Your task to perform on an android device: Go to Reddit.com Image 0: 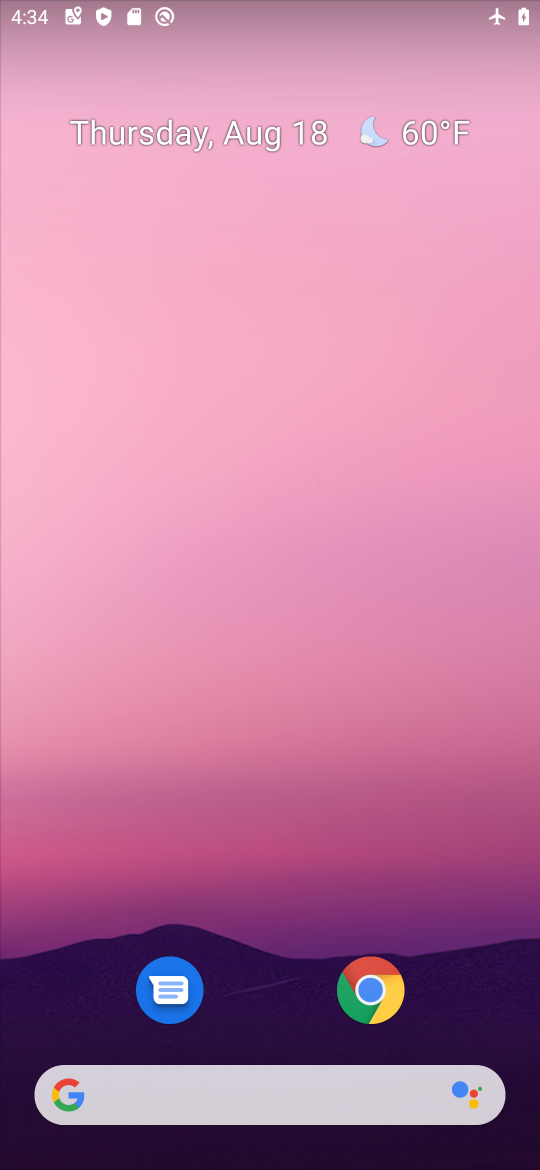
Step 0: drag from (172, 602) to (302, 0)
Your task to perform on an android device: Go to Reddit.com Image 1: 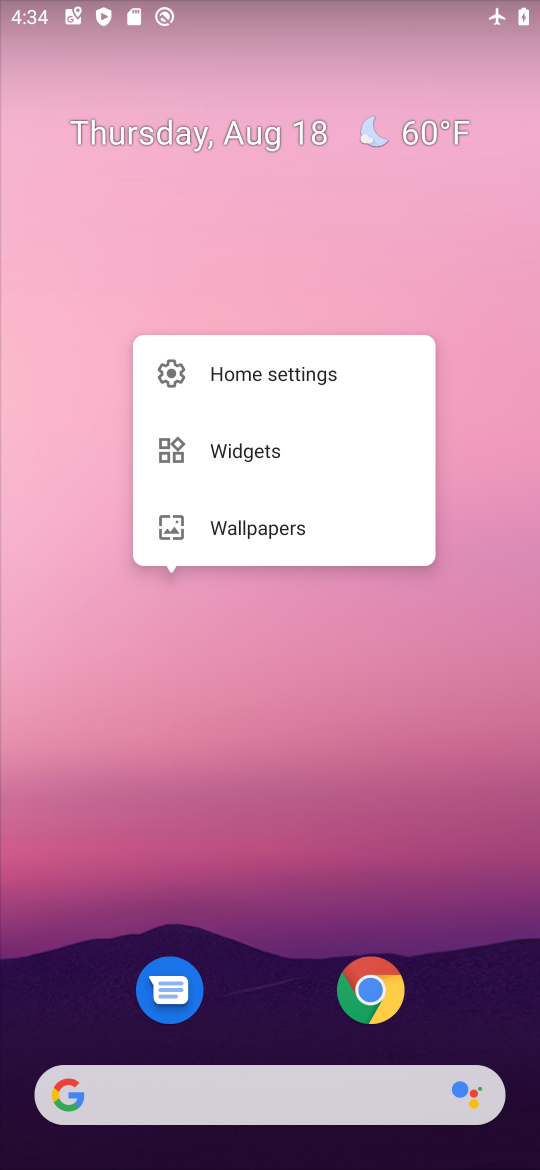
Step 1: click (352, 814)
Your task to perform on an android device: Go to Reddit.com Image 2: 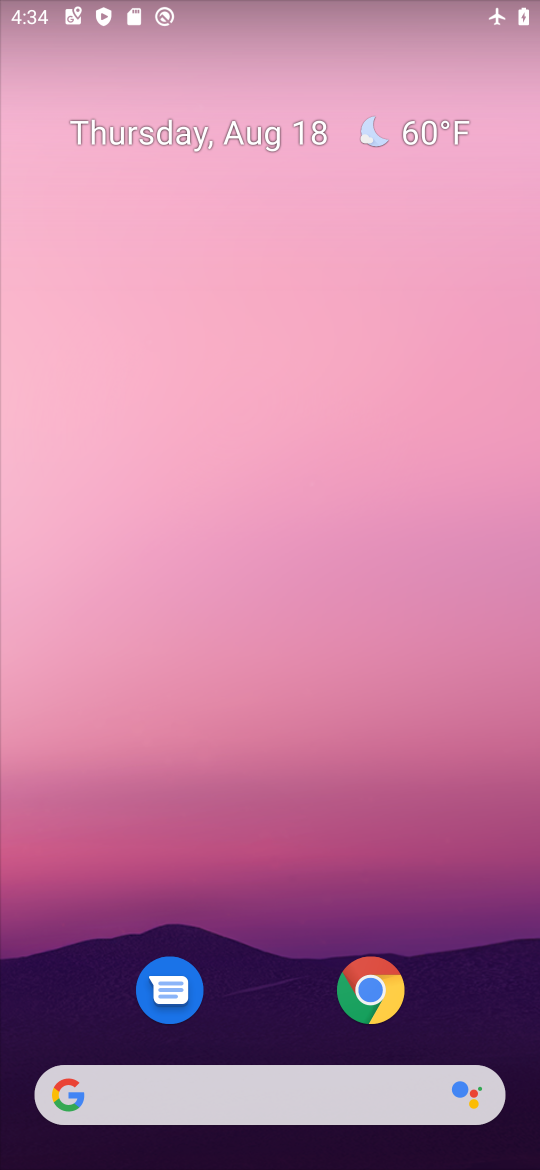
Step 2: drag from (232, 861) to (289, 74)
Your task to perform on an android device: Go to Reddit.com Image 3: 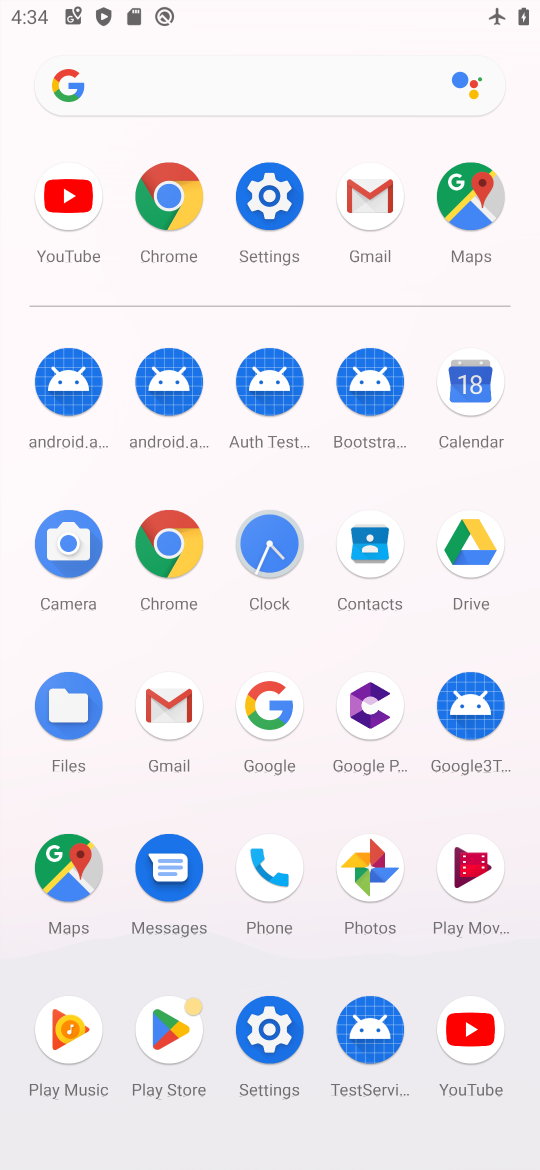
Step 3: click (177, 561)
Your task to perform on an android device: Go to Reddit.com Image 4: 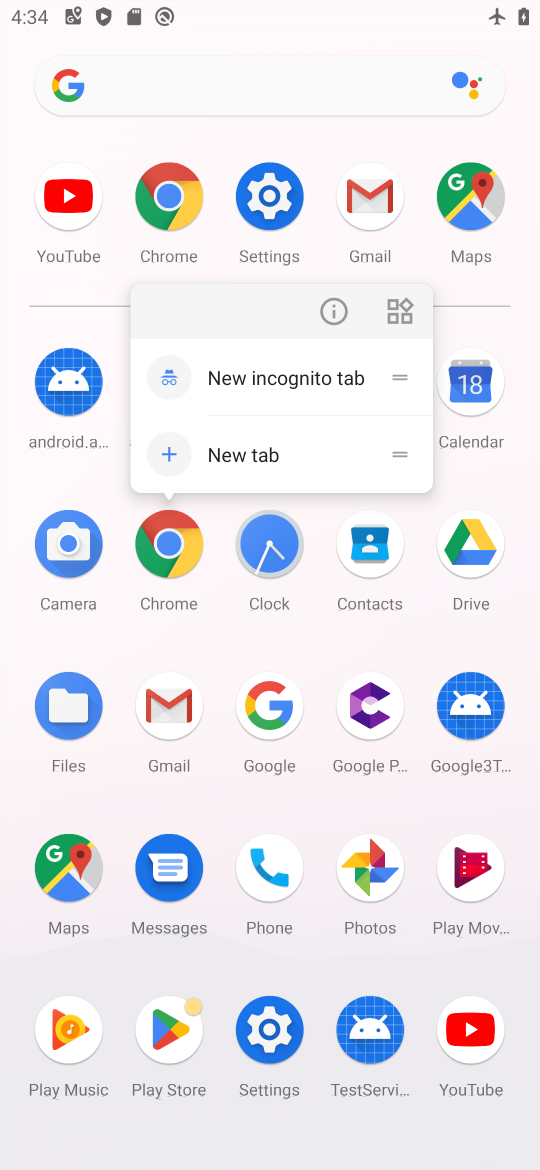
Step 4: click (168, 543)
Your task to perform on an android device: Go to Reddit.com Image 5: 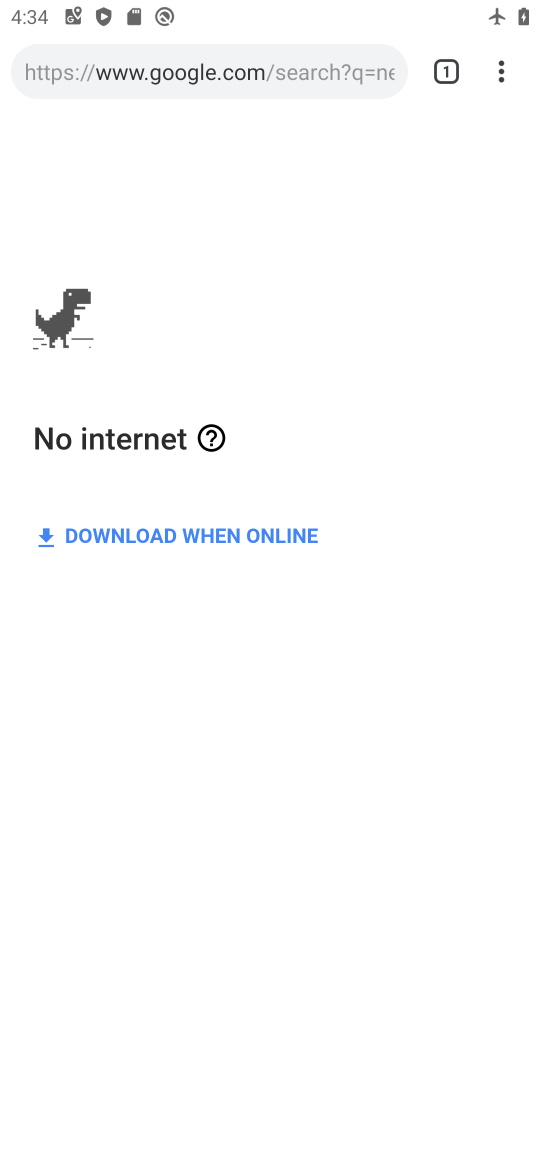
Step 5: click (298, 73)
Your task to perform on an android device: Go to Reddit.com Image 6: 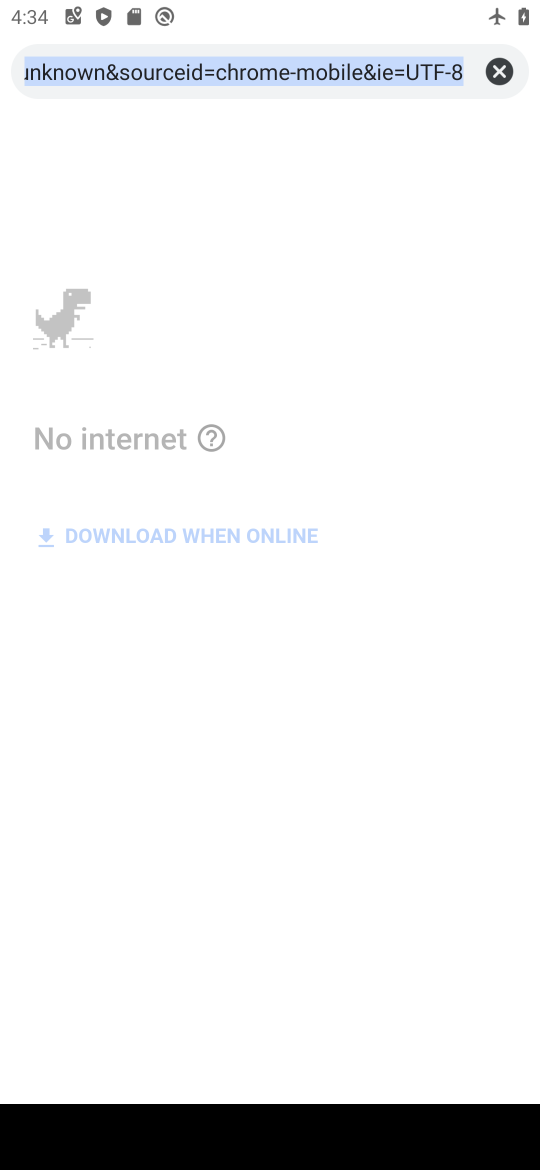
Step 6: type "reddit.com"
Your task to perform on an android device: Go to Reddit.com Image 7: 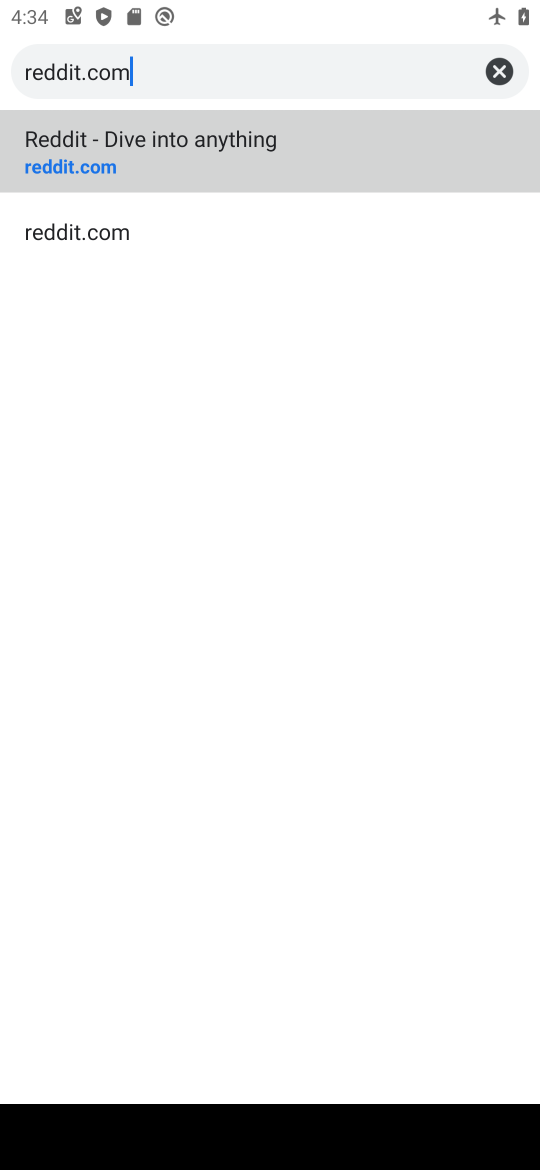
Step 7: click (82, 172)
Your task to perform on an android device: Go to Reddit.com Image 8: 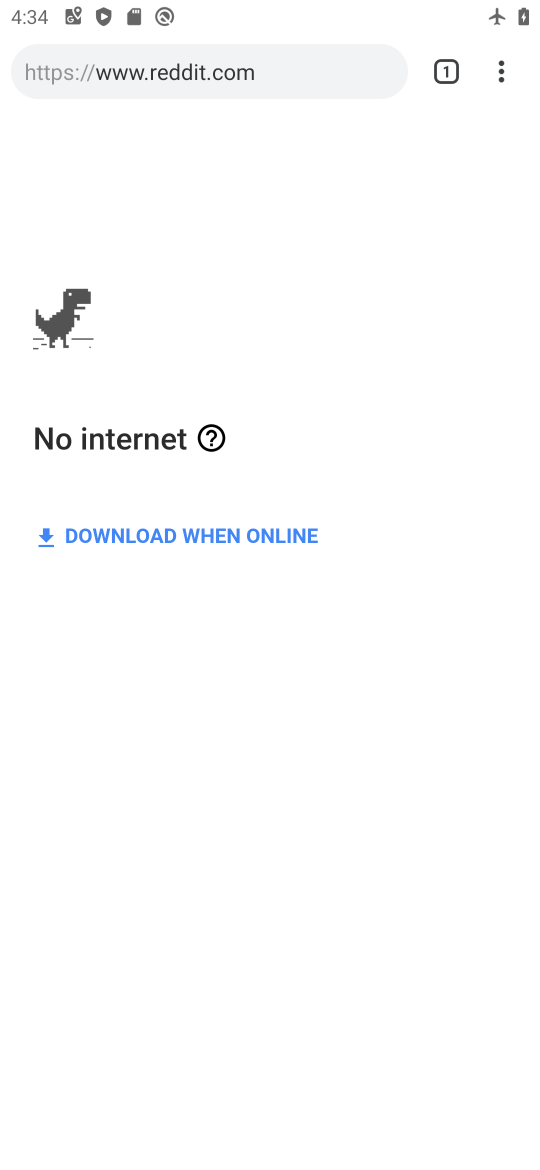
Step 8: task complete